Your task to perform on an android device: Go to battery settings Image 0: 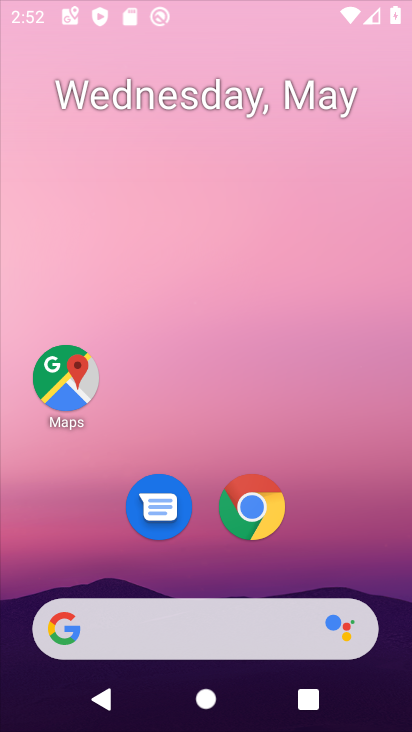
Step 0: press home button
Your task to perform on an android device: Go to battery settings Image 1: 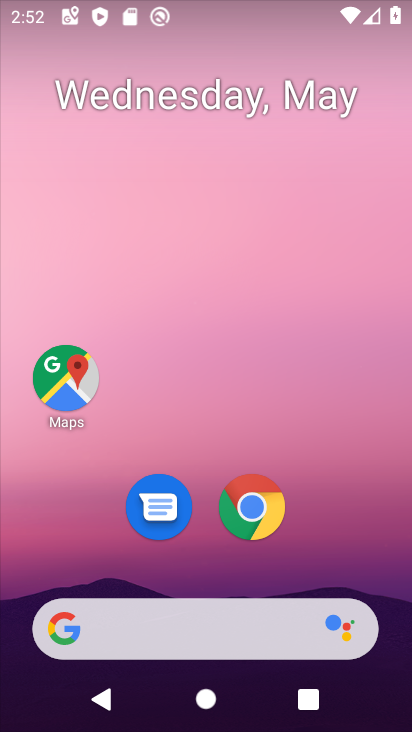
Step 1: drag from (210, 571) to (266, 88)
Your task to perform on an android device: Go to battery settings Image 2: 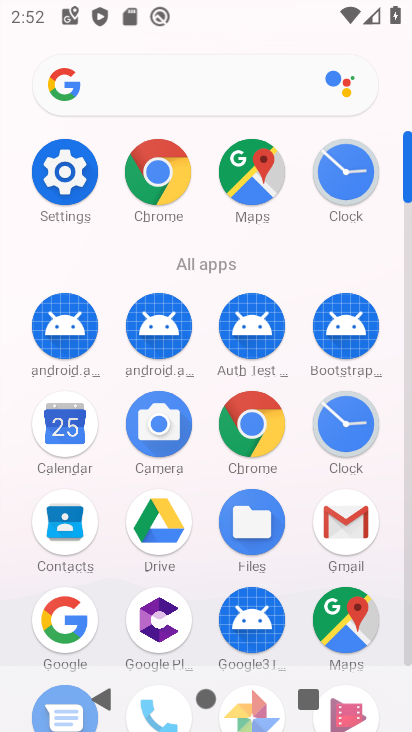
Step 2: click (68, 169)
Your task to perform on an android device: Go to battery settings Image 3: 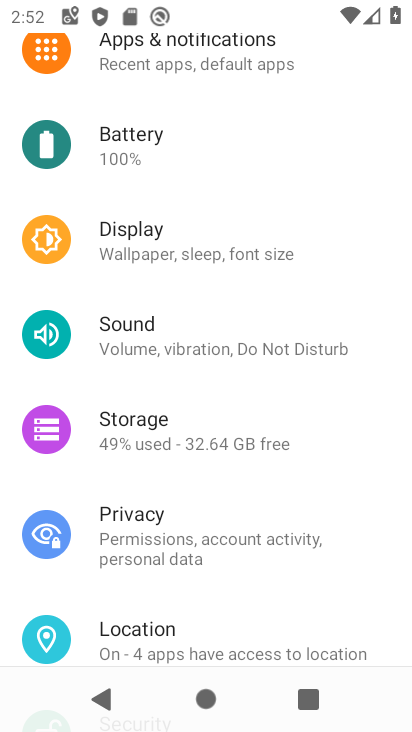
Step 3: click (171, 146)
Your task to perform on an android device: Go to battery settings Image 4: 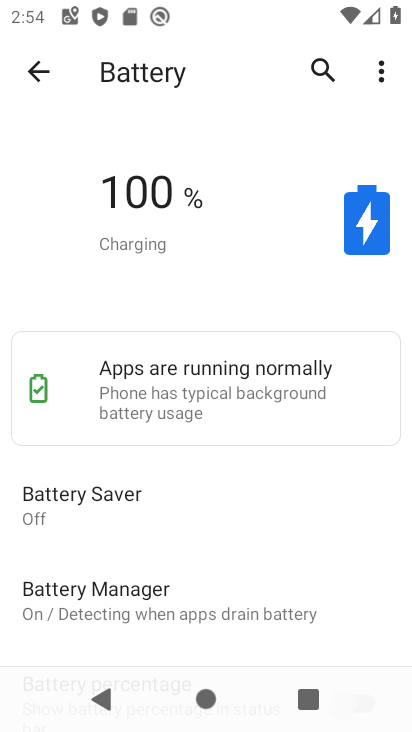
Step 4: task complete